Your task to perform on an android device: Open the map Image 0: 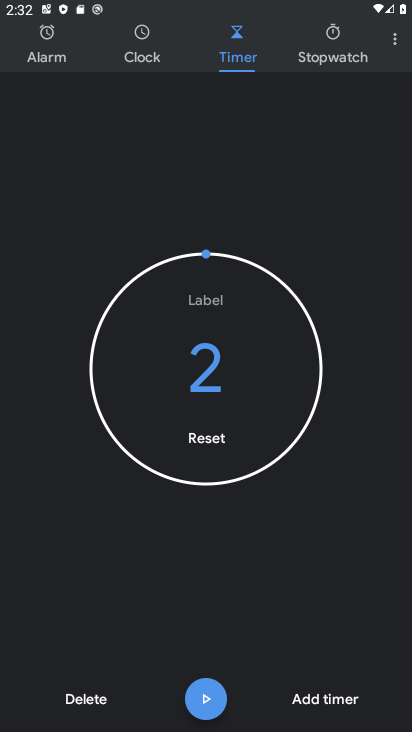
Step 0: press home button
Your task to perform on an android device: Open the map Image 1: 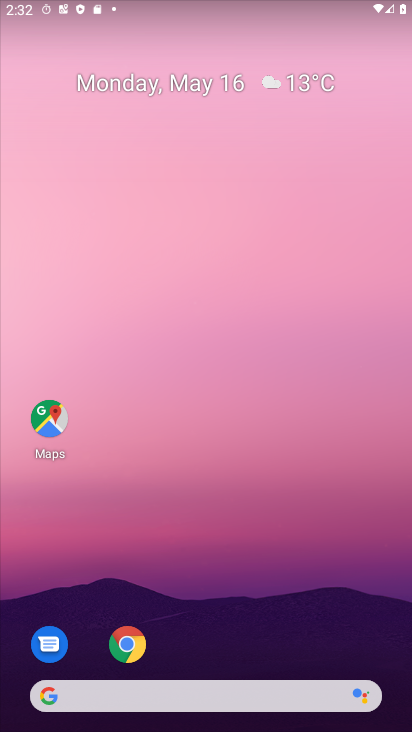
Step 1: drag from (256, 673) to (134, 90)
Your task to perform on an android device: Open the map Image 2: 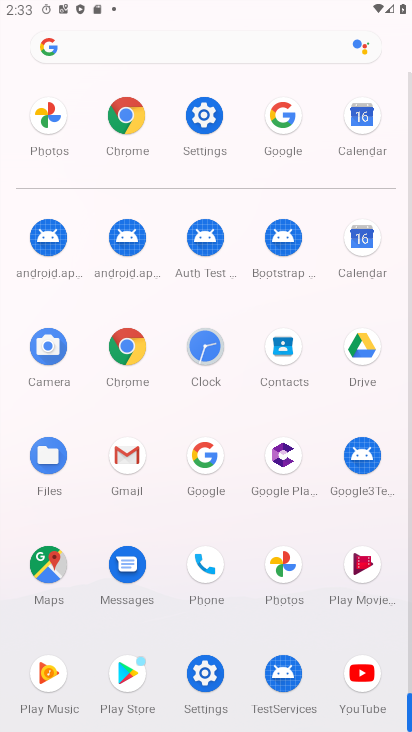
Step 2: click (45, 588)
Your task to perform on an android device: Open the map Image 3: 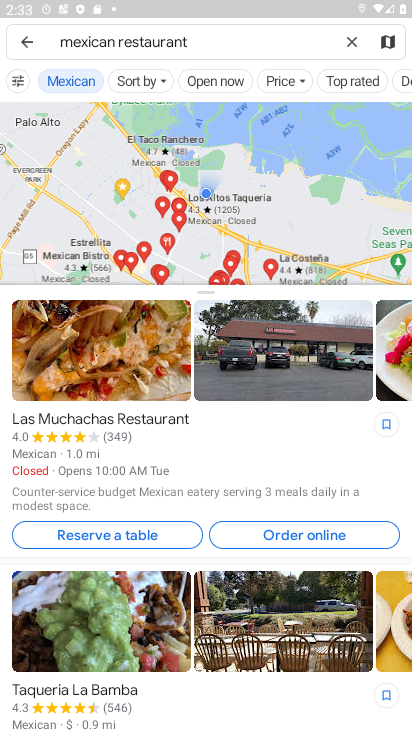
Step 3: task complete